Your task to perform on an android device: Find coffee shops on Maps Image 0: 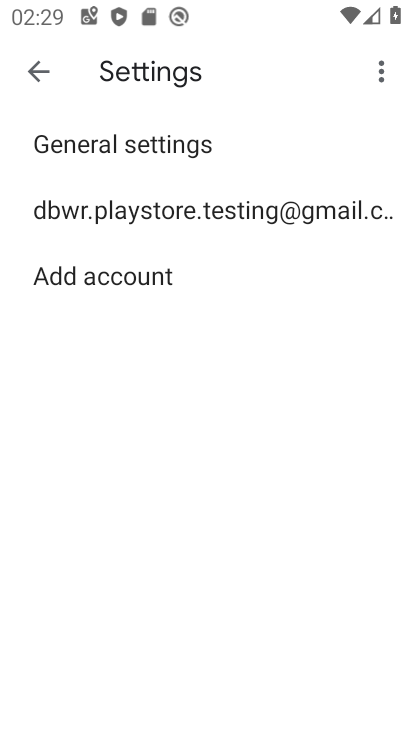
Step 0: press back button
Your task to perform on an android device: Find coffee shops on Maps Image 1: 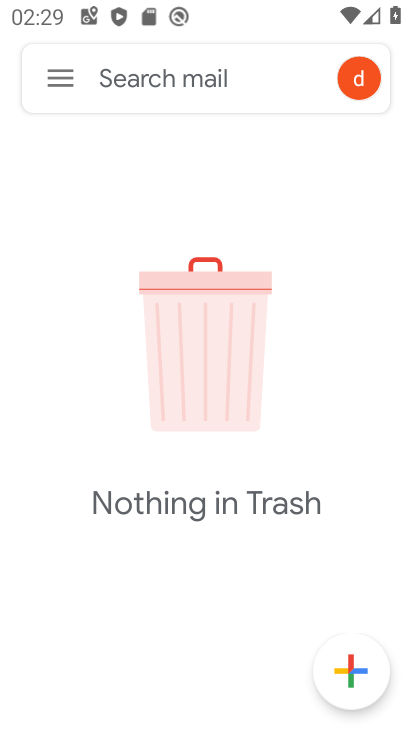
Step 1: press back button
Your task to perform on an android device: Find coffee shops on Maps Image 2: 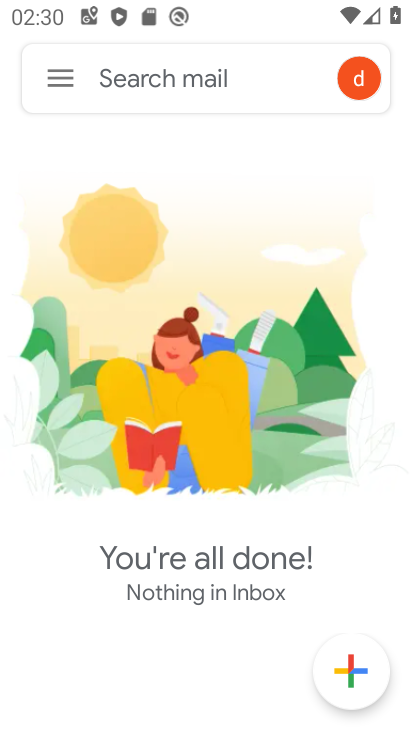
Step 2: press back button
Your task to perform on an android device: Find coffee shops on Maps Image 3: 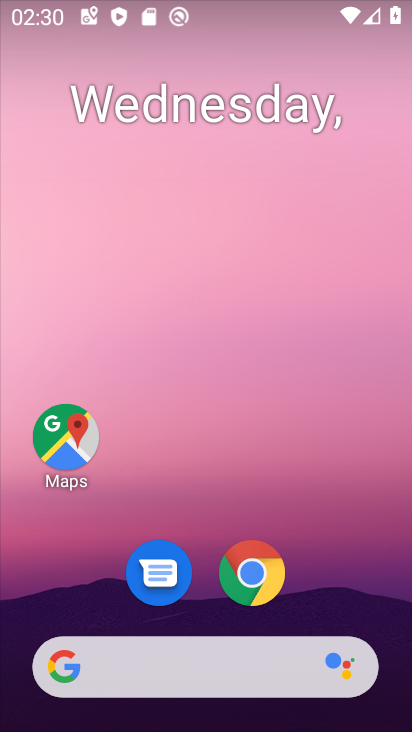
Step 3: click (65, 437)
Your task to perform on an android device: Find coffee shops on Maps Image 4: 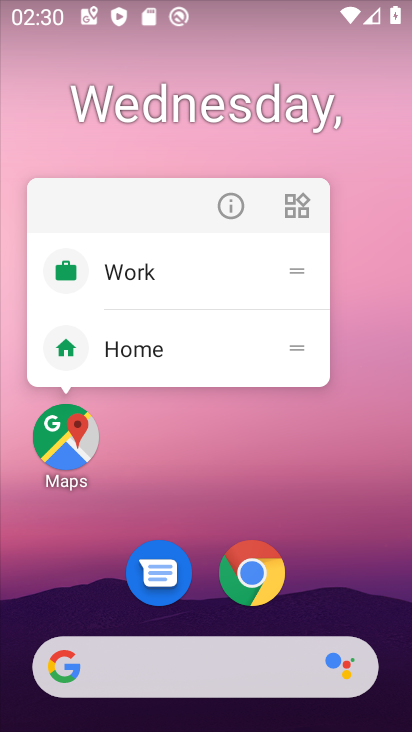
Step 4: click (68, 441)
Your task to perform on an android device: Find coffee shops on Maps Image 5: 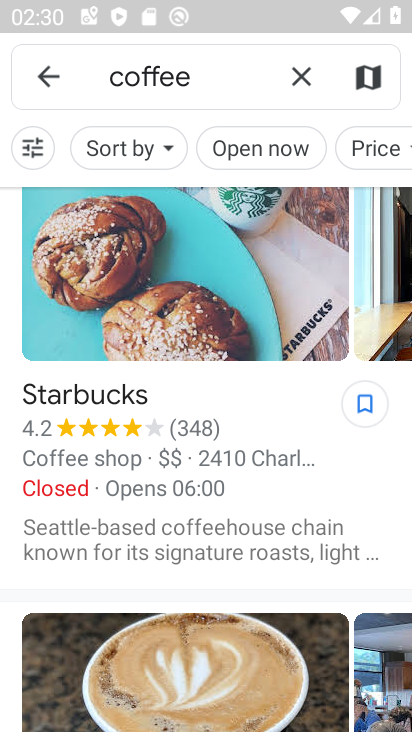
Step 5: click (301, 74)
Your task to perform on an android device: Find coffee shops on Maps Image 6: 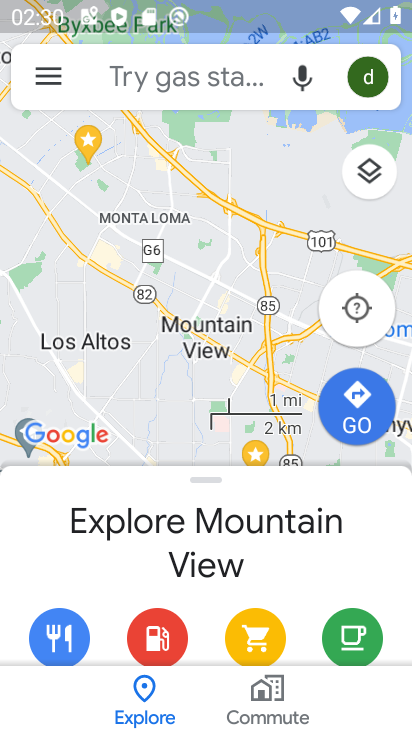
Step 6: click (257, 73)
Your task to perform on an android device: Find coffee shops on Maps Image 7: 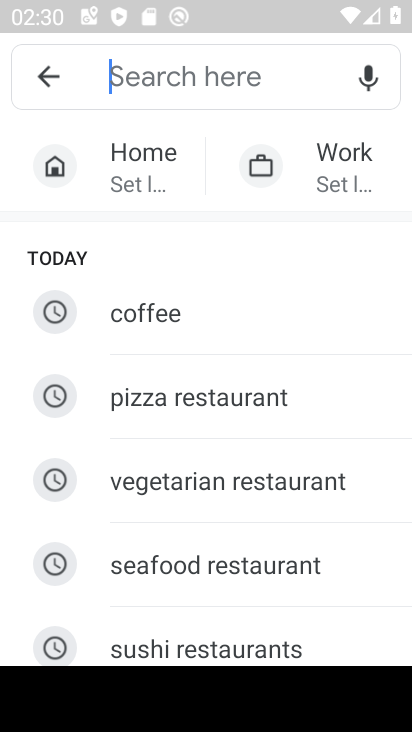
Step 7: type "coffee shops"
Your task to perform on an android device: Find coffee shops on Maps Image 8: 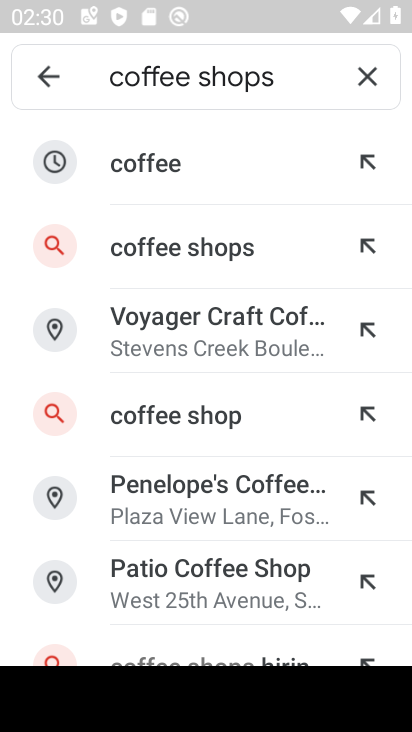
Step 8: click (237, 259)
Your task to perform on an android device: Find coffee shops on Maps Image 9: 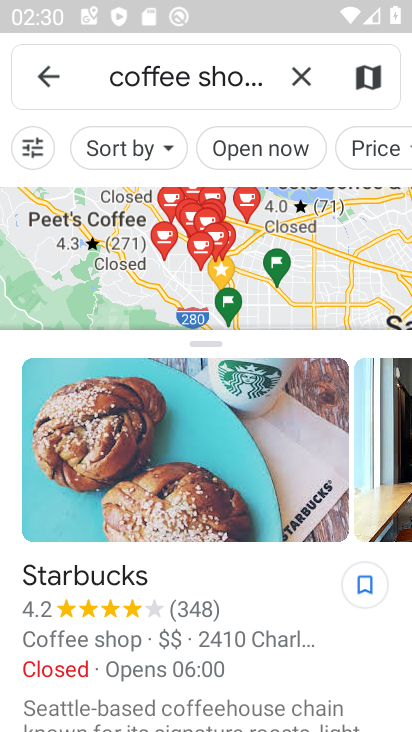
Step 9: task complete